Your task to perform on an android device: Do I have any events tomorrow? Image 0: 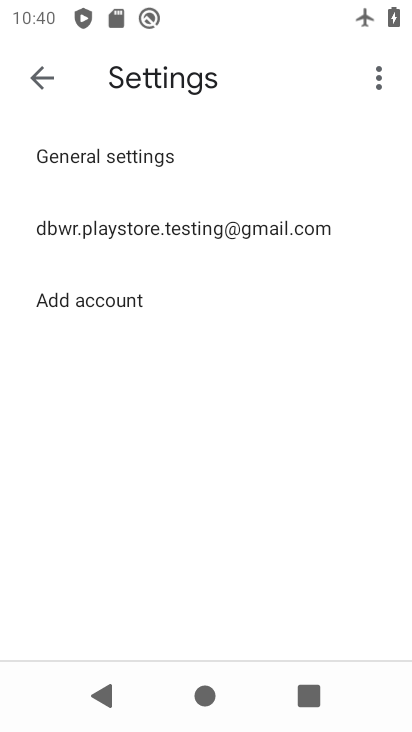
Step 0: press back button
Your task to perform on an android device: Do I have any events tomorrow? Image 1: 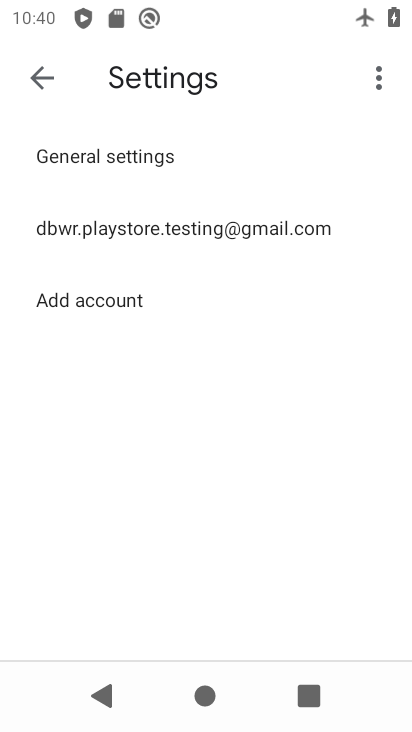
Step 1: press back button
Your task to perform on an android device: Do I have any events tomorrow? Image 2: 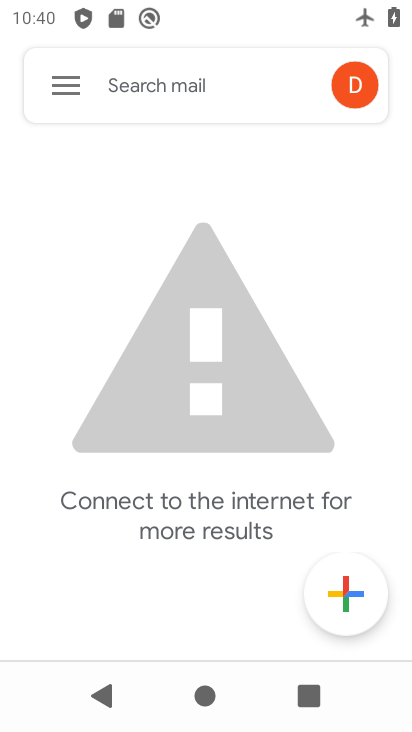
Step 2: press back button
Your task to perform on an android device: Do I have any events tomorrow? Image 3: 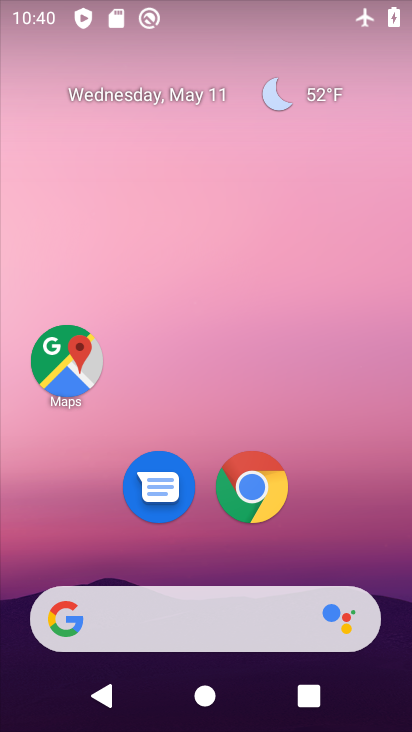
Step 3: drag from (376, 551) to (311, 13)
Your task to perform on an android device: Do I have any events tomorrow? Image 4: 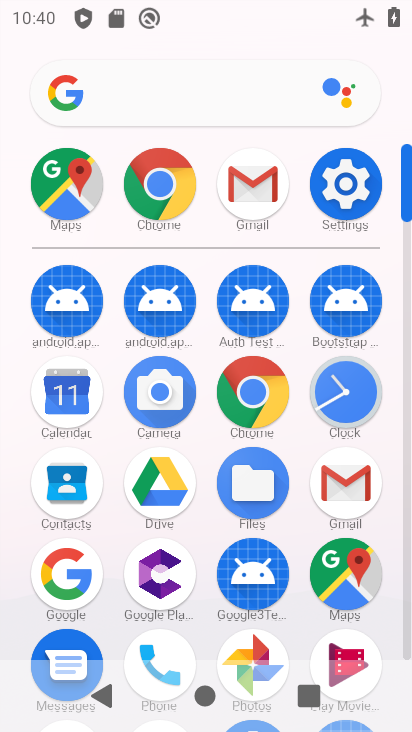
Step 4: drag from (14, 592) to (2, 322)
Your task to perform on an android device: Do I have any events tomorrow? Image 5: 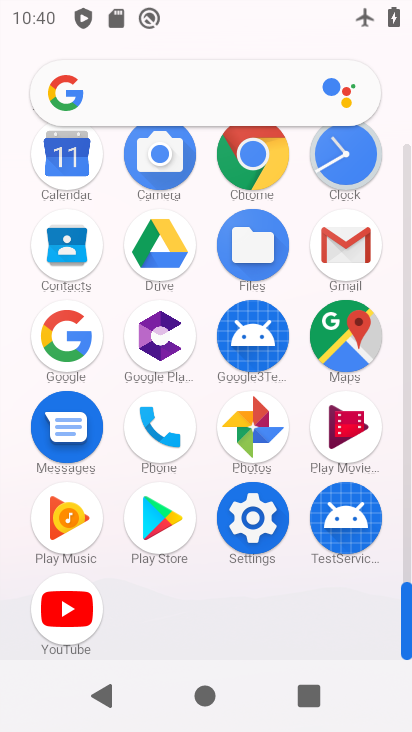
Step 5: click (65, 153)
Your task to perform on an android device: Do I have any events tomorrow? Image 6: 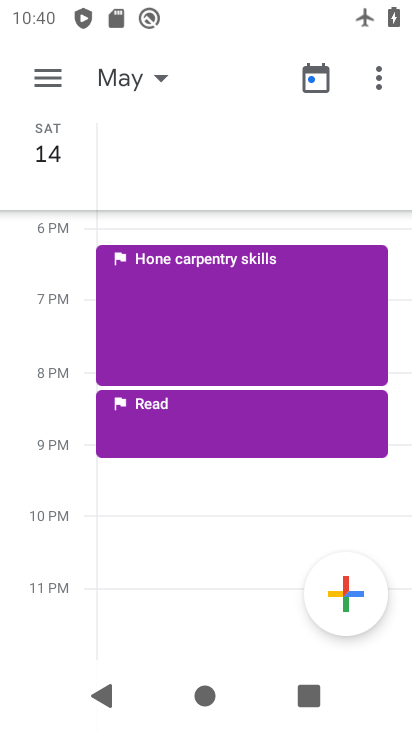
Step 6: click (318, 75)
Your task to perform on an android device: Do I have any events tomorrow? Image 7: 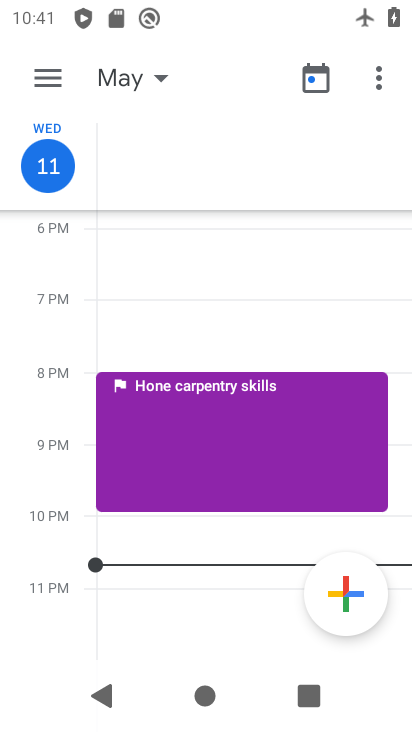
Step 7: task complete